Your task to perform on an android device: Open Chrome and go to settings Image 0: 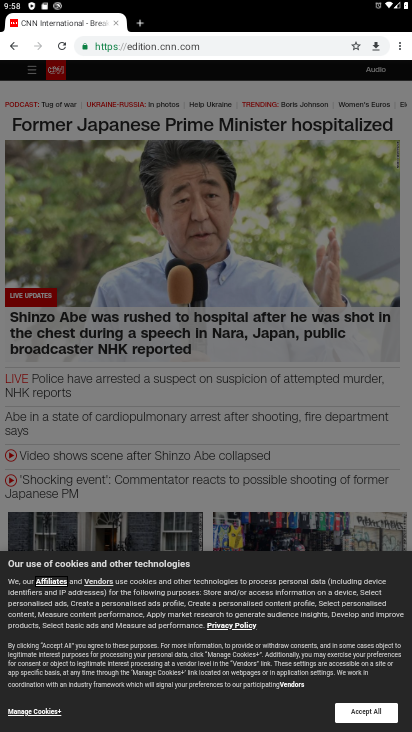
Step 0: click (400, 47)
Your task to perform on an android device: Open Chrome and go to settings Image 1: 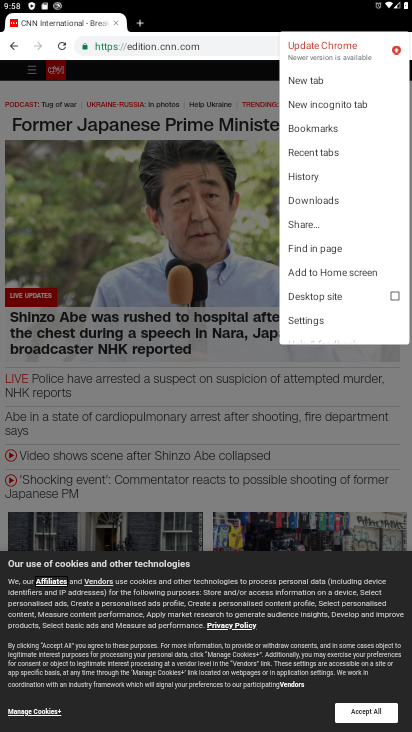
Step 1: click (303, 323)
Your task to perform on an android device: Open Chrome and go to settings Image 2: 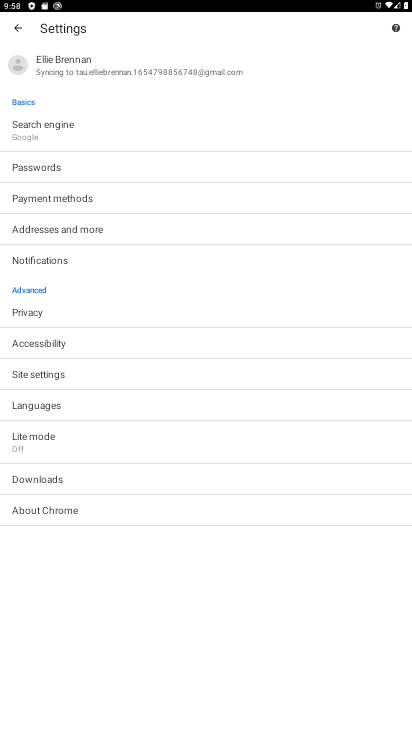
Step 2: task complete